Your task to perform on an android device: visit the assistant section in the google photos Image 0: 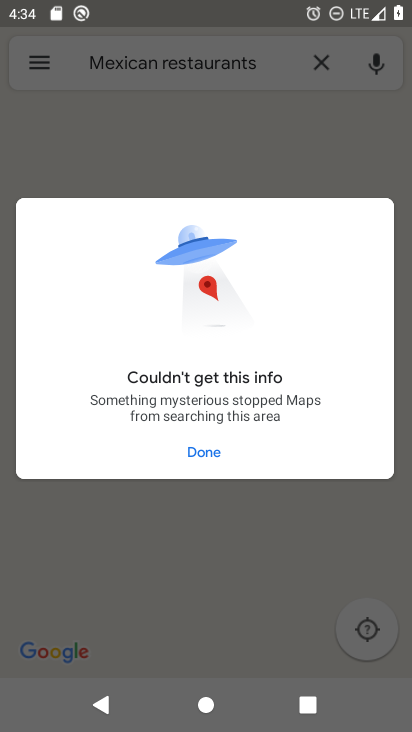
Step 0: press home button
Your task to perform on an android device: visit the assistant section in the google photos Image 1: 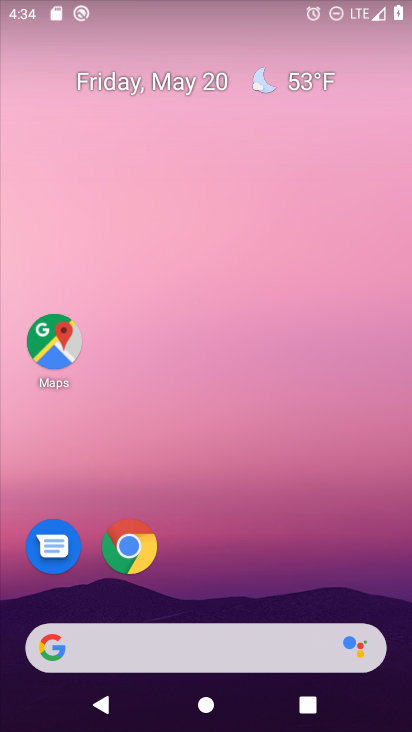
Step 1: drag from (275, 551) to (255, 190)
Your task to perform on an android device: visit the assistant section in the google photos Image 2: 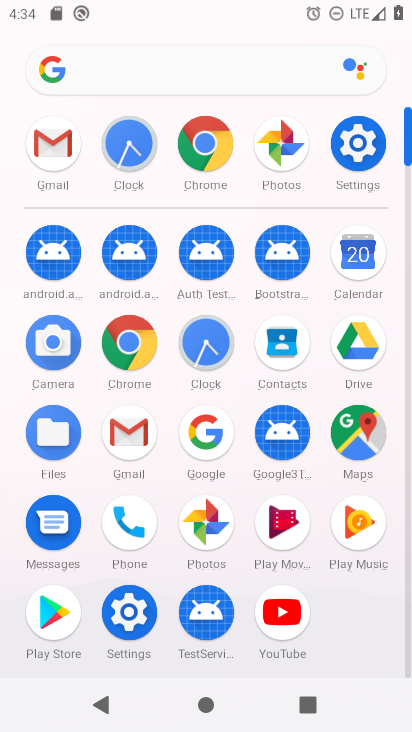
Step 2: click (210, 538)
Your task to perform on an android device: visit the assistant section in the google photos Image 3: 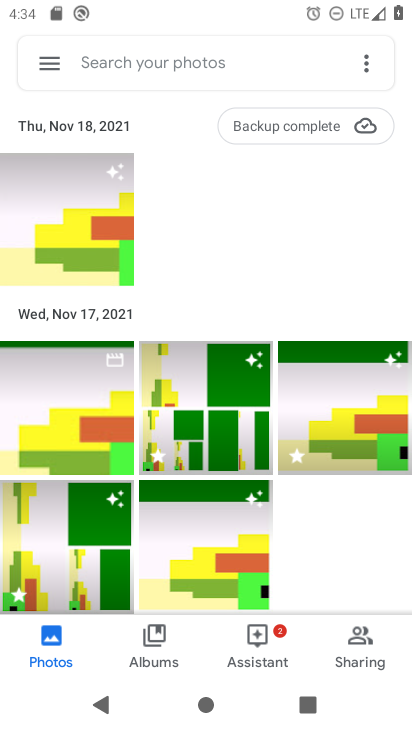
Step 3: click (265, 639)
Your task to perform on an android device: visit the assistant section in the google photos Image 4: 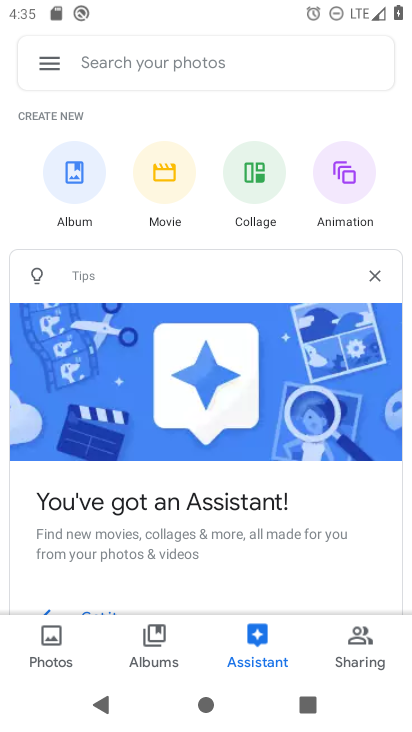
Step 4: task complete